Your task to perform on an android device: change text size in settings app Image 0: 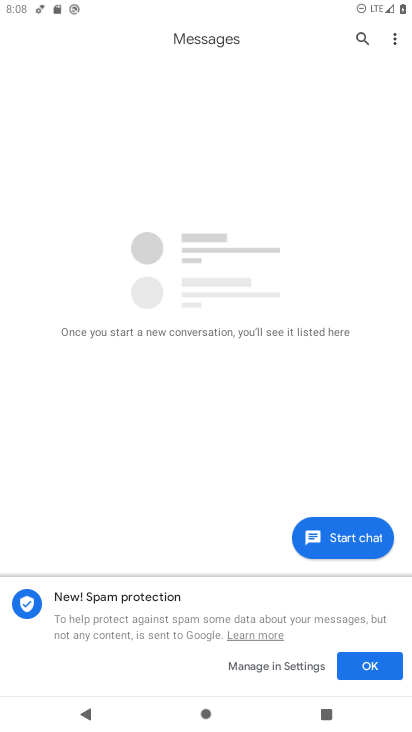
Step 0: press back button
Your task to perform on an android device: change text size in settings app Image 1: 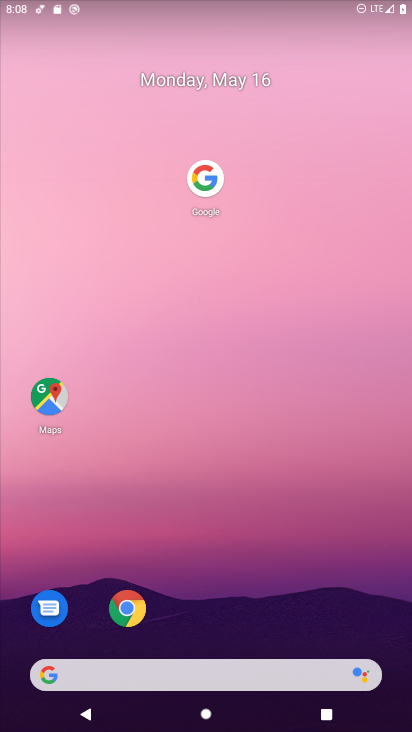
Step 1: drag from (277, 573) to (247, 165)
Your task to perform on an android device: change text size in settings app Image 2: 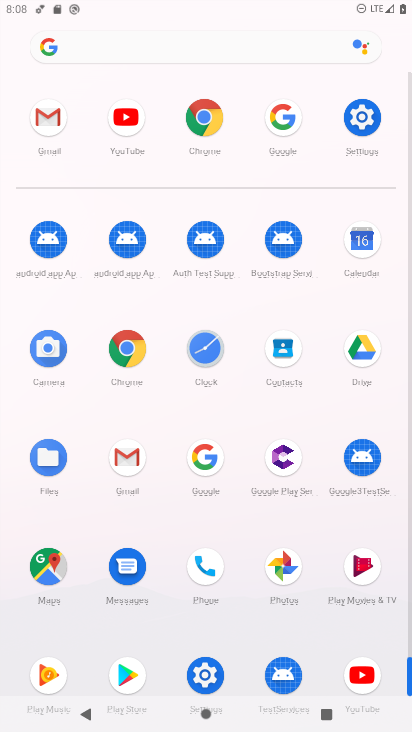
Step 2: click (364, 115)
Your task to perform on an android device: change text size in settings app Image 3: 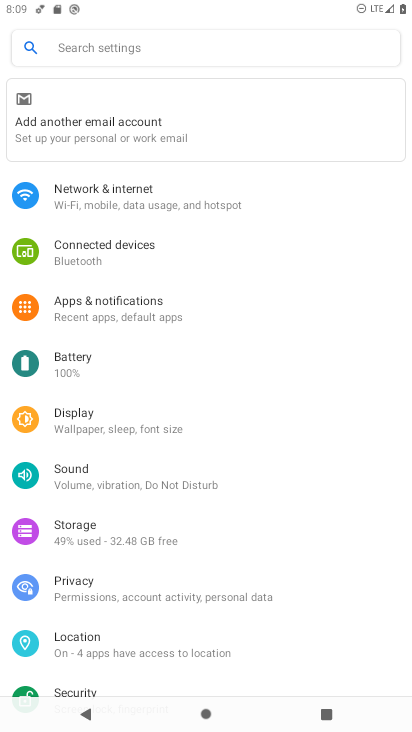
Step 3: drag from (135, 392) to (147, 323)
Your task to perform on an android device: change text size in settings app Image 4: 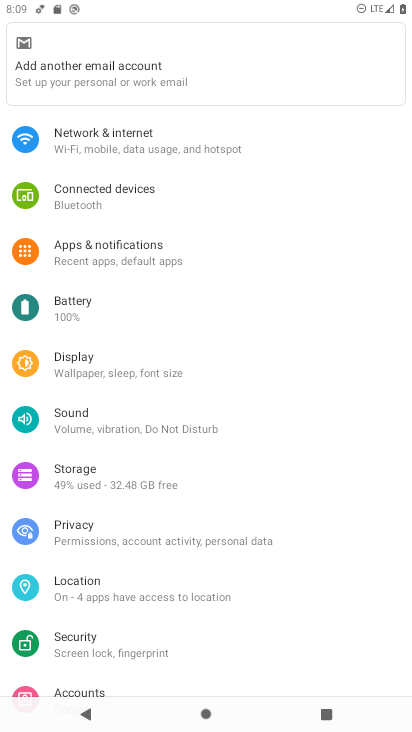
Step 4: drag from (129, 506) to (145, 447)
Your task to perform on an android device: change text size in settings app Image 5: 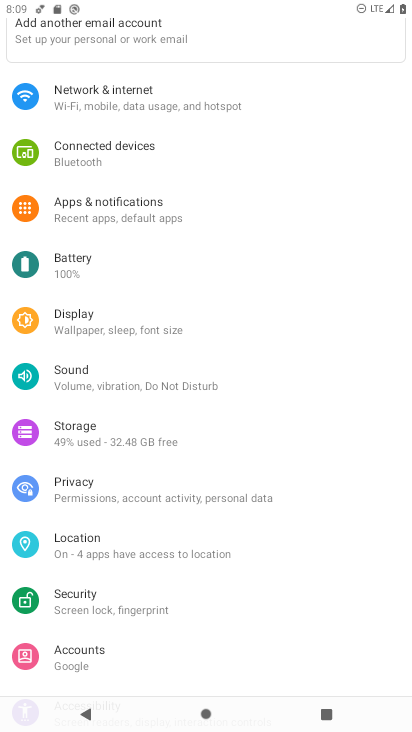
Step 5: drag from (120, 509) to (133, 452)
Your task to perform on an android device: change text size in settings app Image 6: 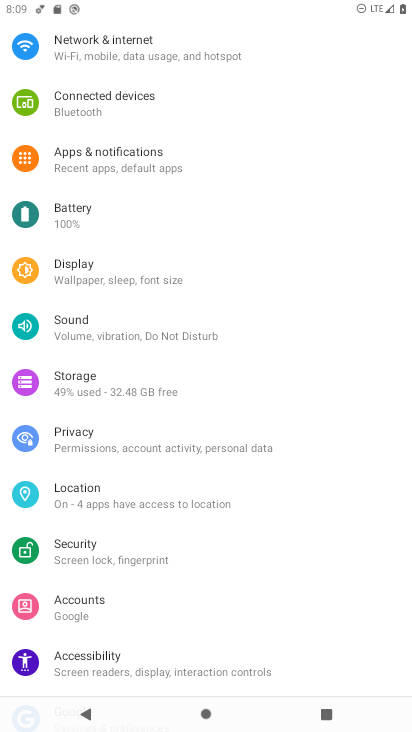
Step 6: drag from (84, 521) to (114, 459)
Your task to perform on an android device: change text size in settings app Image 7: 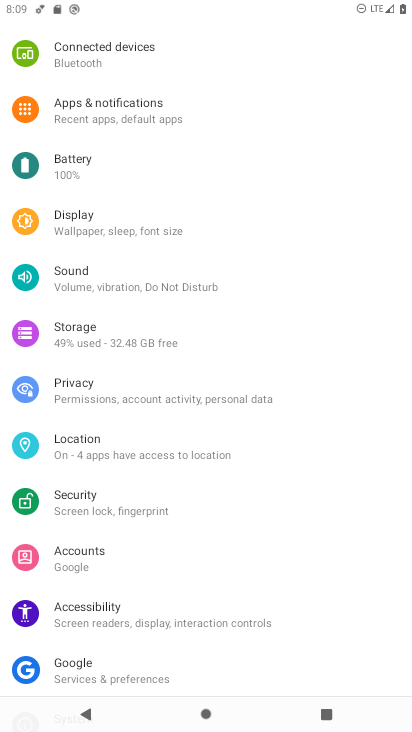
Step 7: drag from (80, 535) to (116, 460)
Your task to perform on an android device: change text size in settings app Image 8: 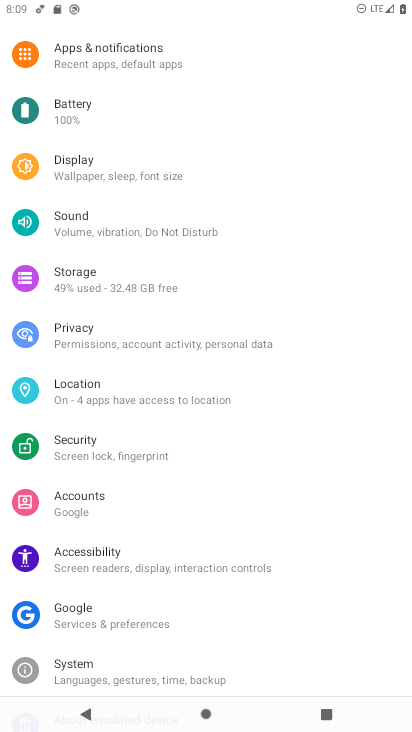
Step 8: click (99, 560)
Your task to perform on an android device: change text size in settings app Image 9: 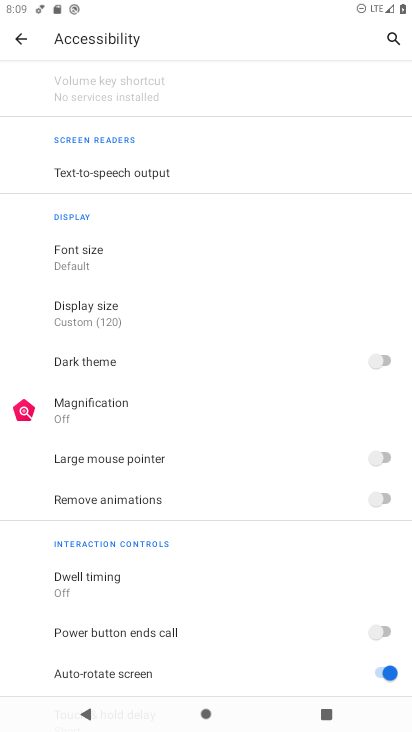
Step 9: click (83, 258)
Your task to perform on an android device: change text size in settings app Image 10: 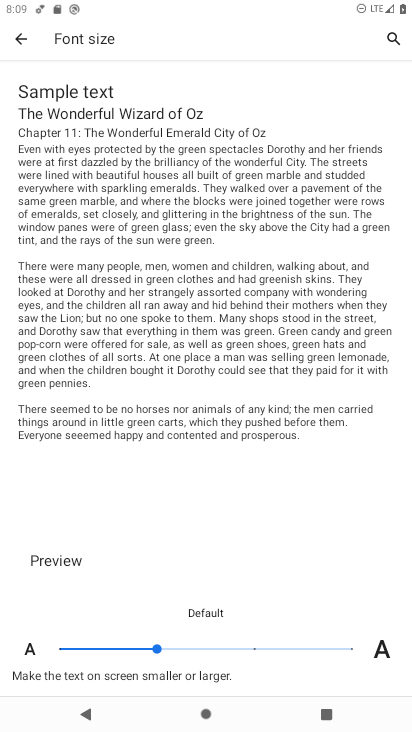
Step 10: click (254, 647)
Your task to perform on an android device: change text size in settings app Image 11: 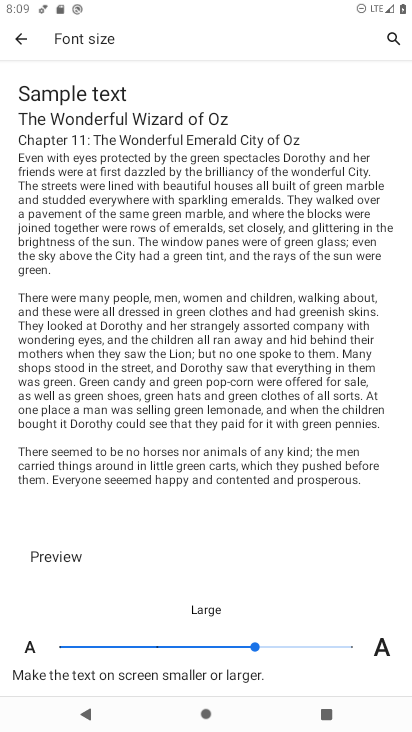
Step 11: task complete